Your task to perform on an android device: clear all cookies in the chrome app Image 0: 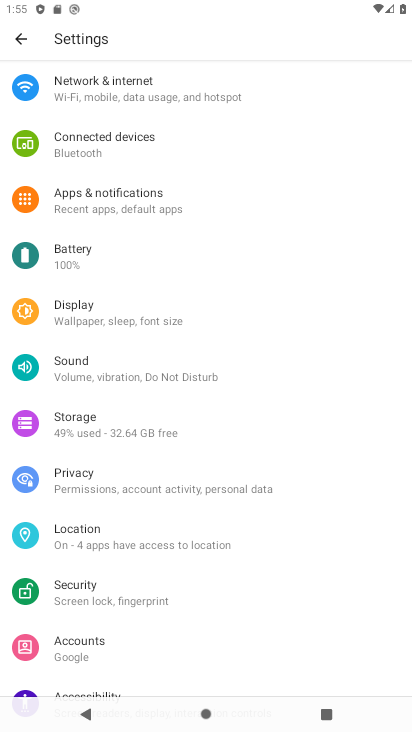
Step 0: press home button
Your task to perform on an android device: clear all cookies in the chrome app Image 1: 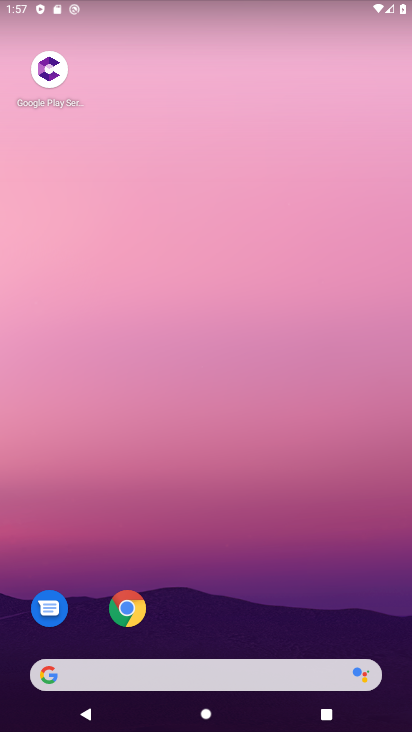
Step 1: click (133, 606)
Your task to perform on an android device: clear all cookies in the chrome app Image 2: 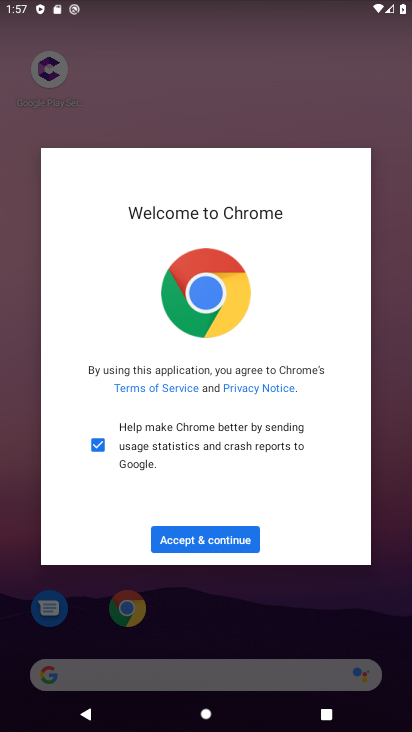
Step 2: click (218, 542)
Your task to perform on an android device: clear all cookies in the chrome app Image 3: 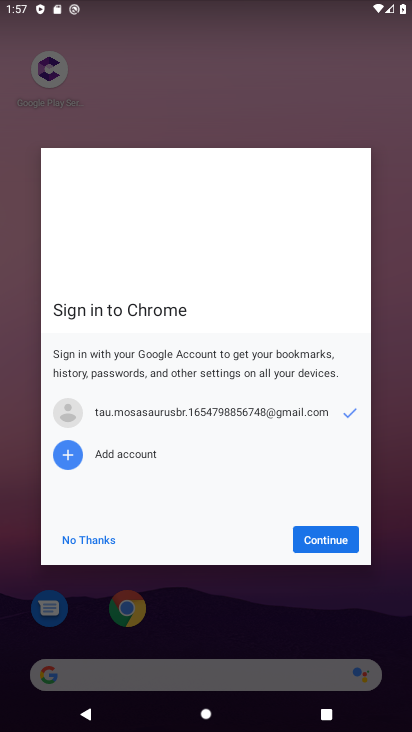
Step 3: click (315, 544)
Your task to perform on an android device: clear all cookies in the chrome app Image 4: 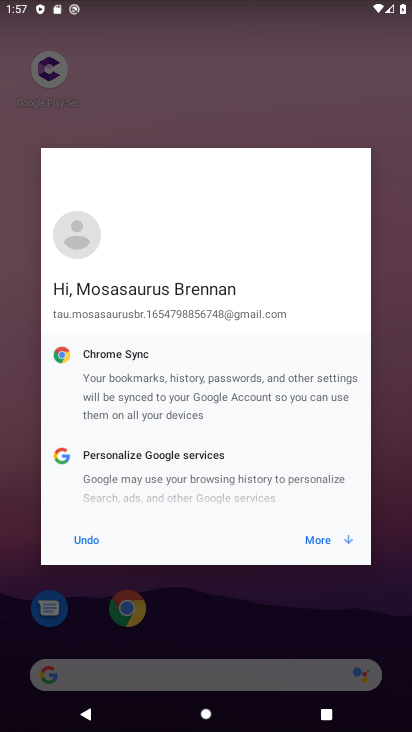
Step 4: click (319, 543)
Your task to perform on an android device: clear all cookies in the chrome app Image 5: 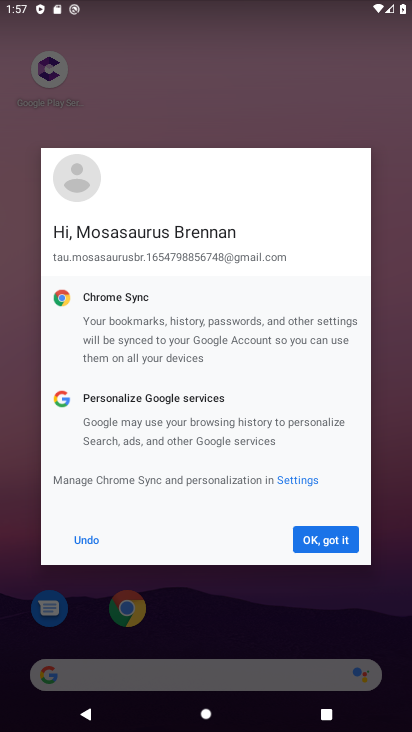
Step 5: click (322, 543)
Your task to perform on an android device: clear all cookies in the chrome app Image 6: 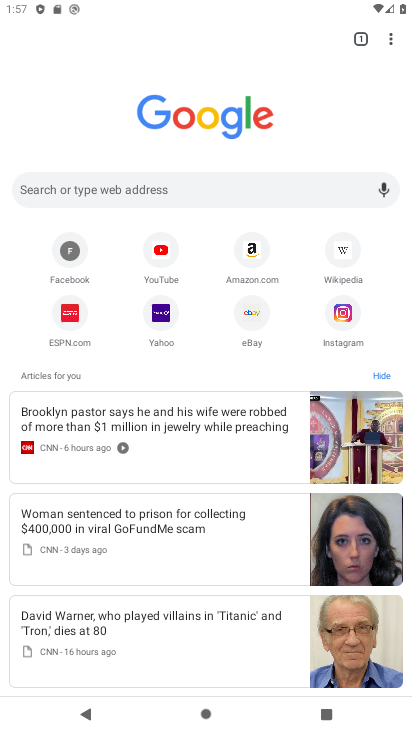
Step 6: click (389, 36)
Your task to perform on an android device: clear all cookies in the chrome app Image 7: 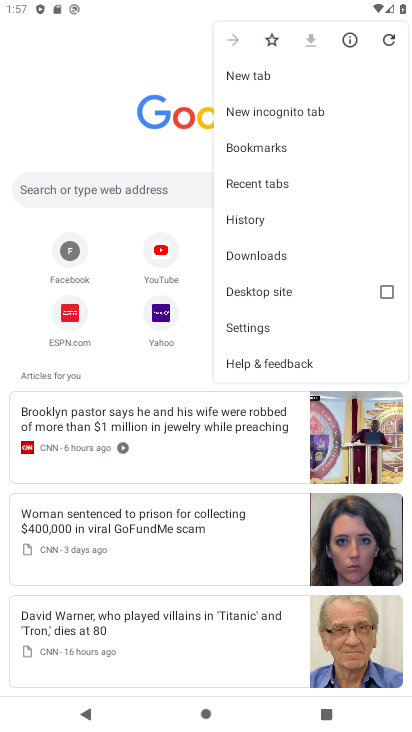
Step 7: click (263, 327)
Your task to perform on an android device: clear all cookies in the chrome app Image 8: 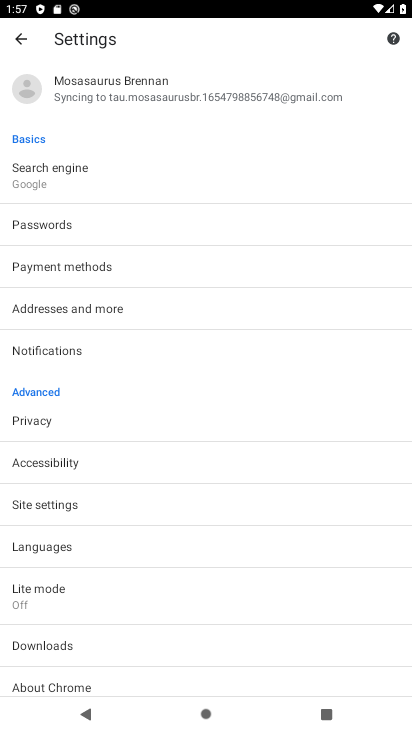
Step 8: click (47, 426)
Your task to perform on an android device: clear all cookies in the chrome app Image 9: 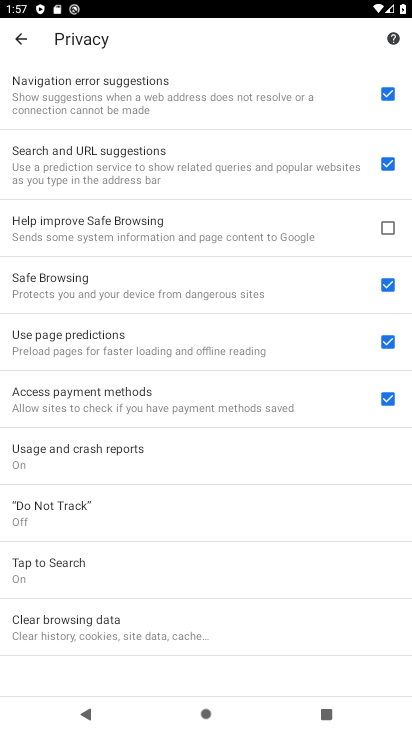
Step 9: click (102, 621)
Your task to perform on an android device: clear all cookies in the chrome app Image 10: 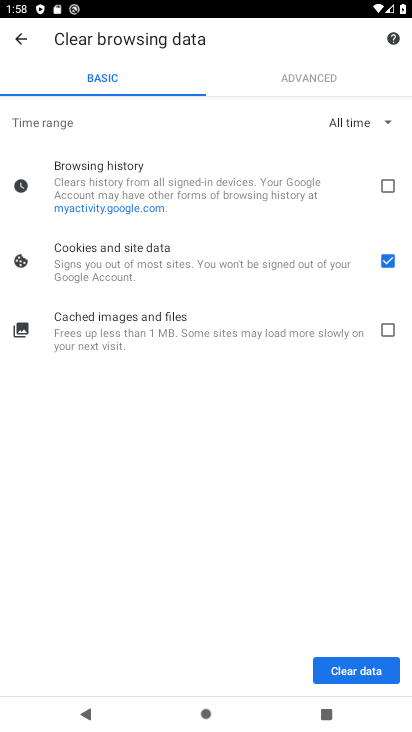
Step 10: click (357, 672)
Your task to perform on an android device: clear all cookies in the chrome app Image 11: 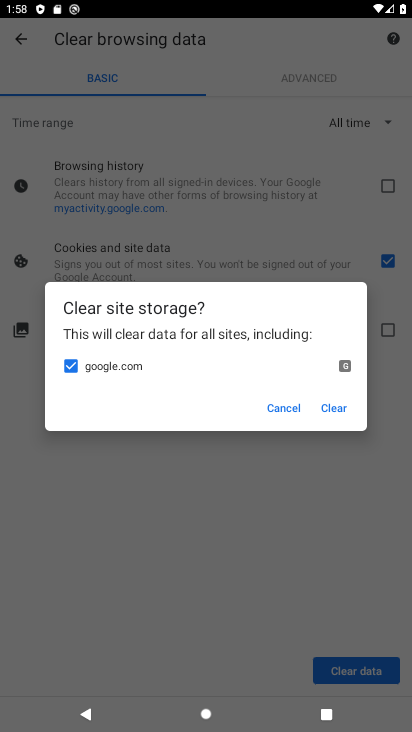
Step 11: click (327, 404)
Your task to perform on an android device: clear all cookies in the chrome app Image 12: 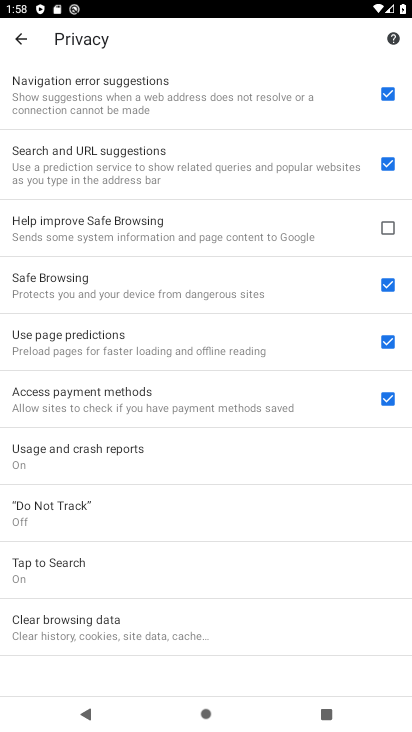
Step 12: task complete